Your task to perform on an android device: open app "Spotify" (install if not already installed) Image 0: 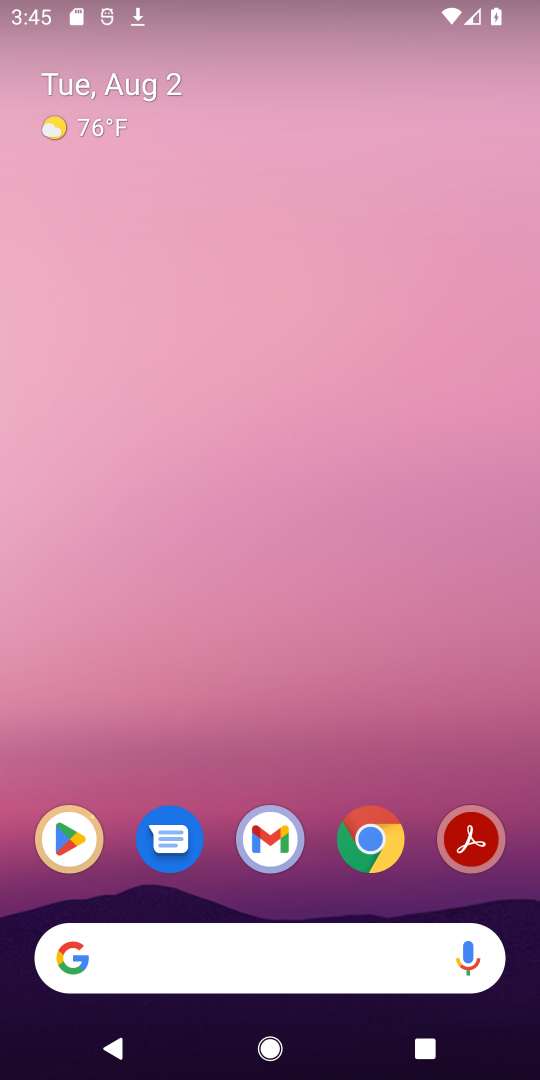
Step 0: drag from (313, 900) to (379, 140)
Your task to perform on an android device: open app "Spotify" (install if not already installed) Image 1: 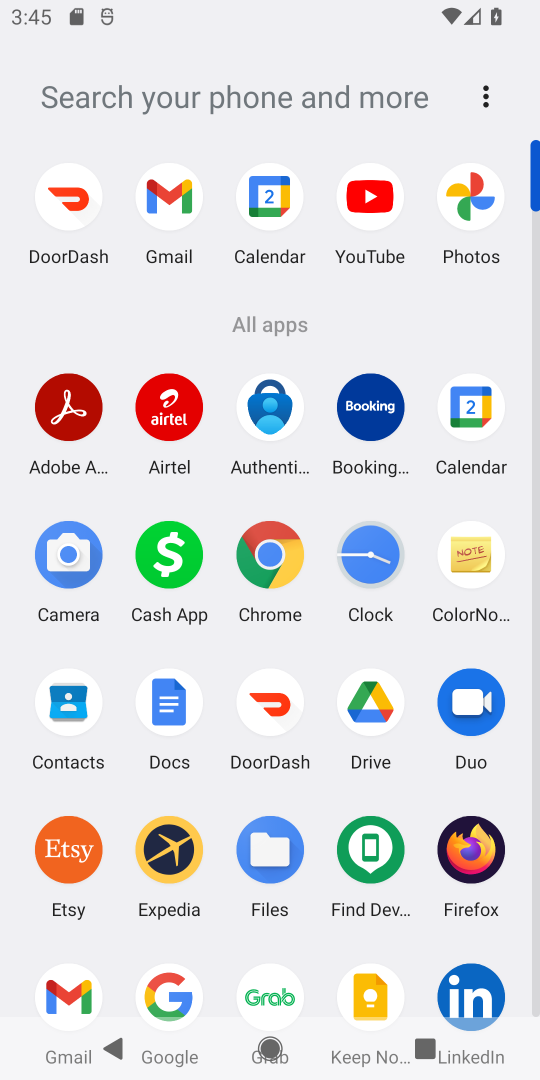
Step 1: click (533, 1007)
Your task to perform on an android device: open app "Spotify" (install if not already installed) Image 2: 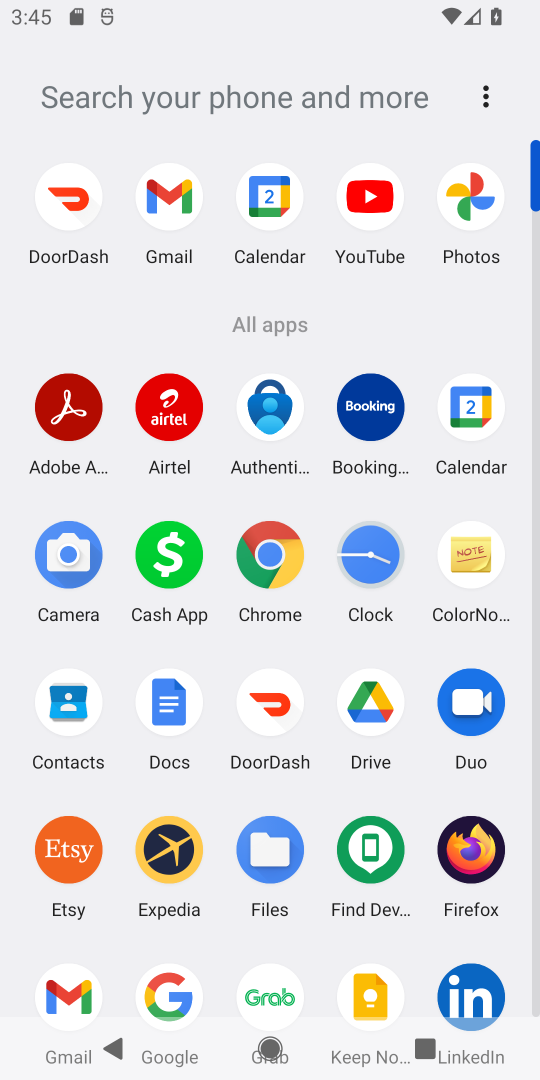
Step 2: click (533, 1007)
Your task to perform on an android device: open app "Spotify" (install if not already installed) Image 3: 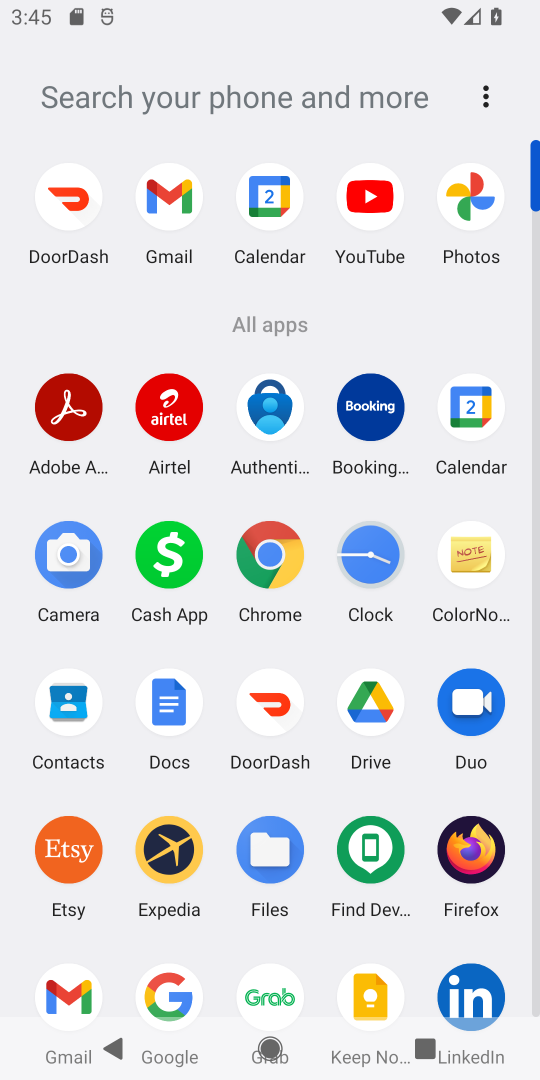
Step 3: click (533, 1007)
Your task to perform on an android device: open app "Spotify" (install if not already installed) Image 4: 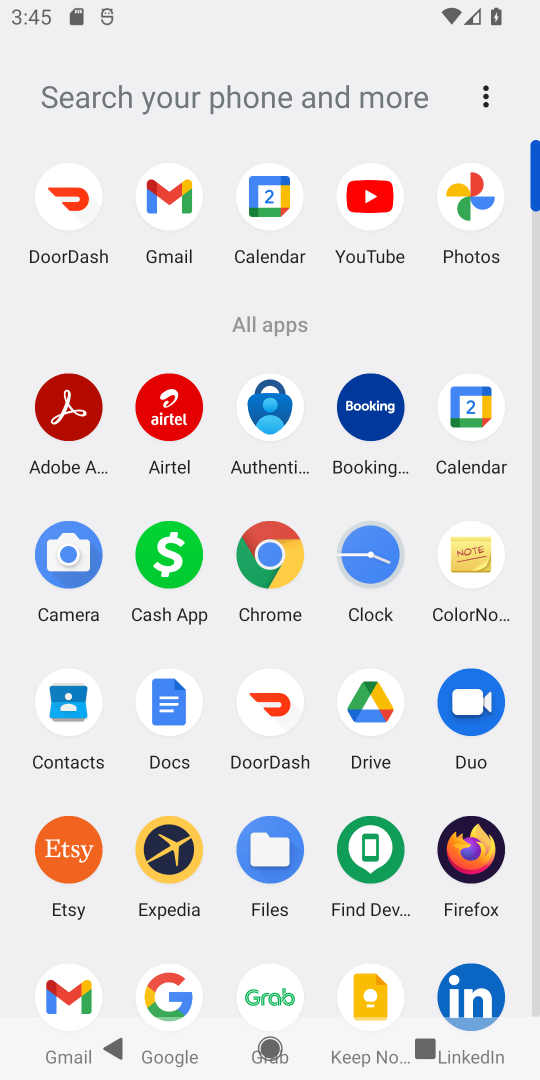
Step 4: click (533, 1007)
Your task to perform on an android device: open app "Spotify" (install if not already installed) Image 5: 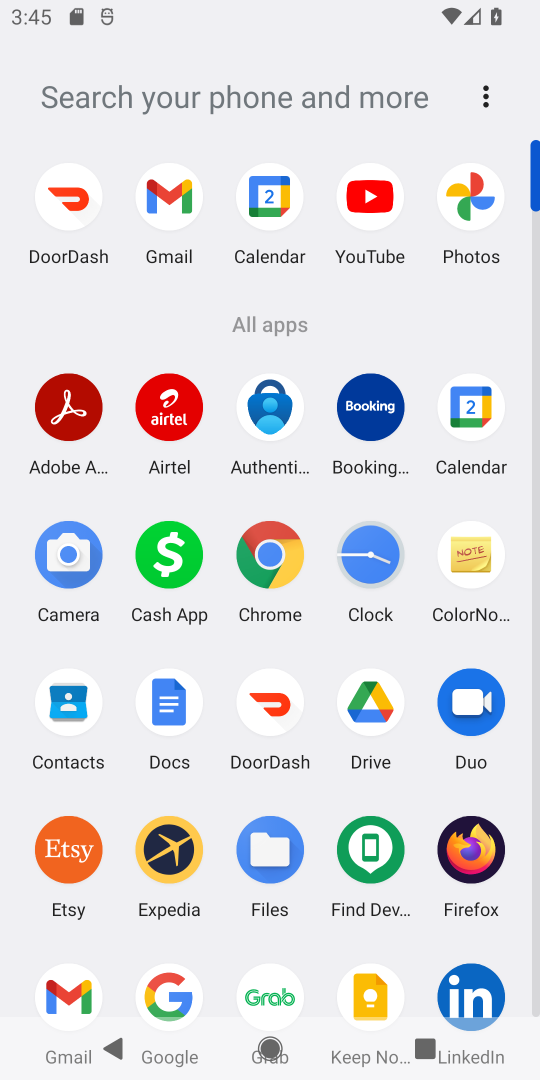
Step 5: click (215, 110)
Your task to perform on an android device: open app "Spotify" (install if not already installed) Image 6: 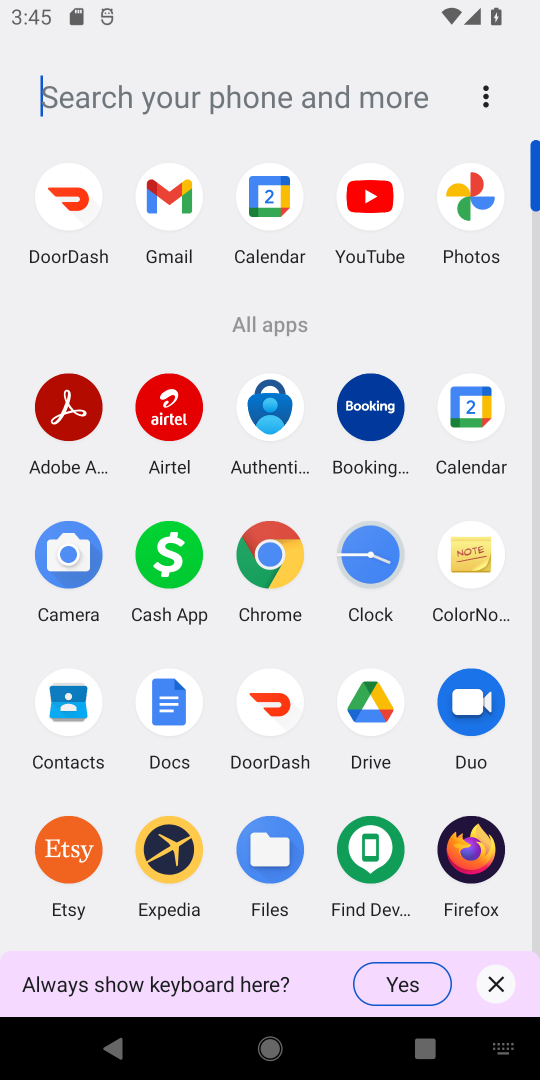
Step 6: type "spotify"
Your task to perform on an android device: open app "Spotify" (install if not already installed) Image 7: 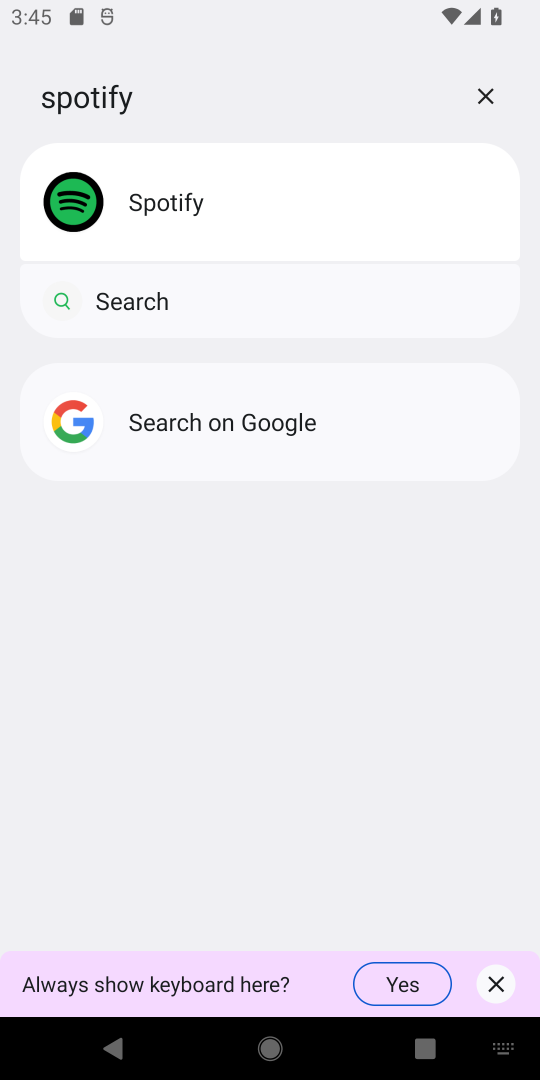
Step 7: click (232, 218)
Your task to perform on an android device: open app "Spotify" (install if not already installed) Image 8: 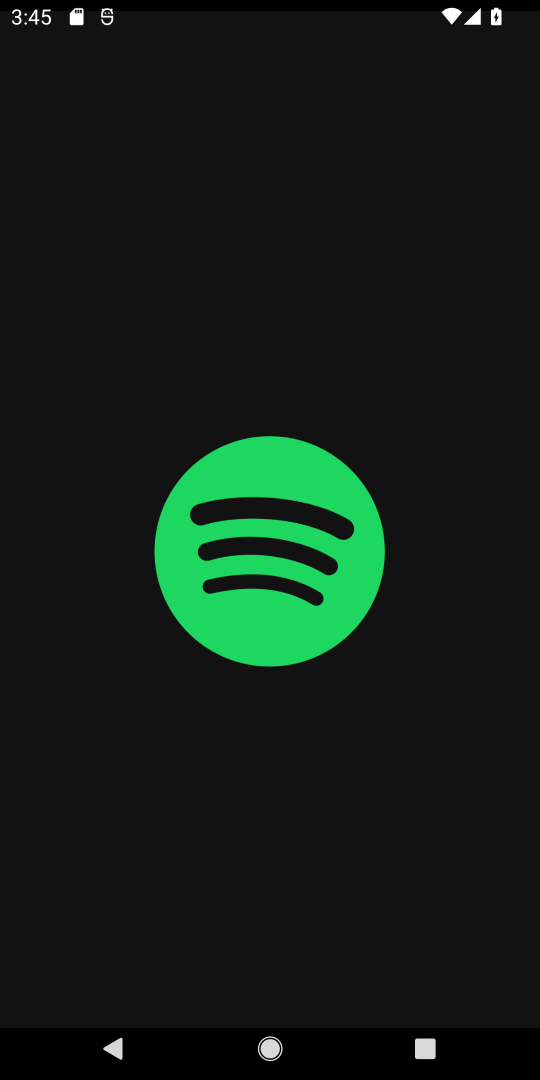
Step 8: task complete